Your task to perform on an android device: clear history in the chrome app Image 0: 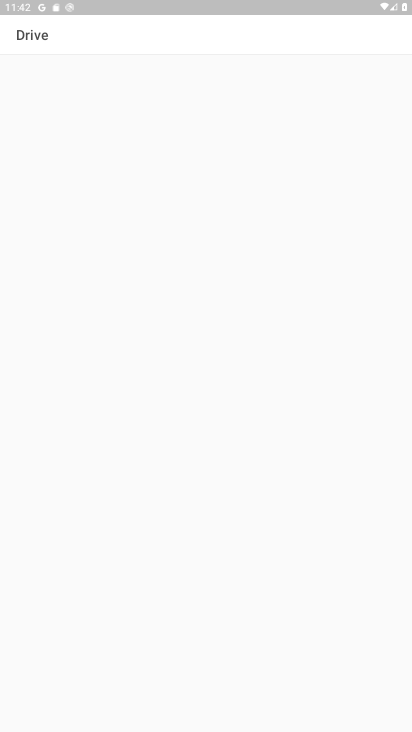
Step 0: press home button
Your task to perform on an android device: clear history in the chrome app Image 1: 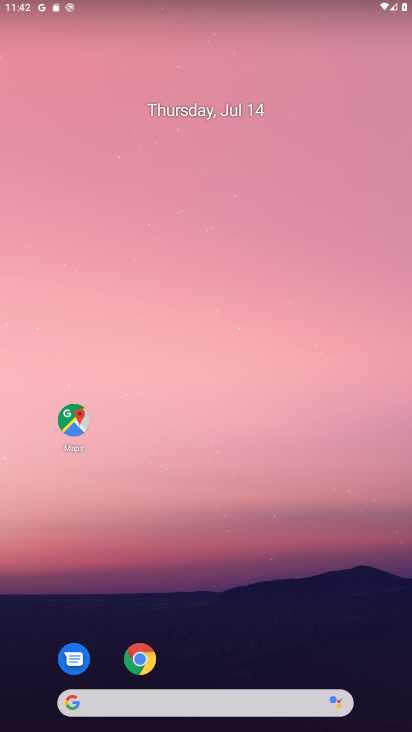
Step 1: click (146, 655)
Your task to perform on an android device: clear history in the chrome app Image 2: 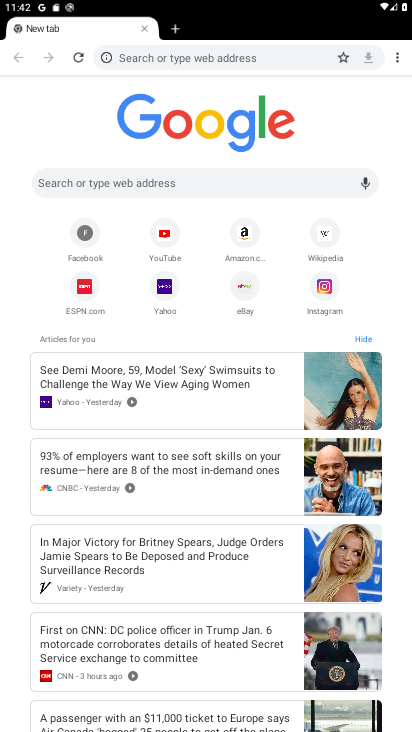
Step 2: click (394, 50)
Your task to perform on an android device: clear history in the chrome app Image 3: 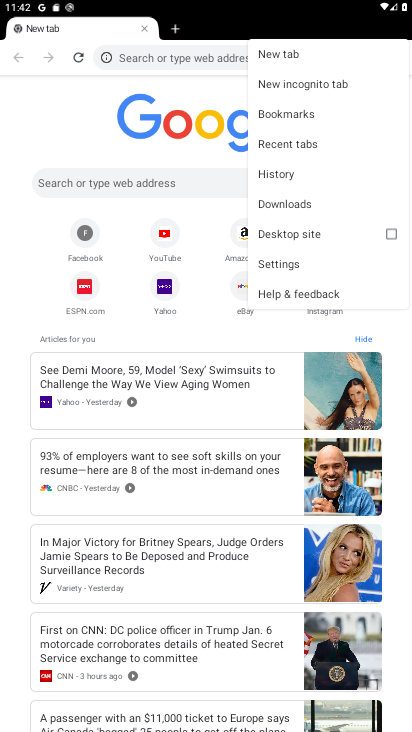
Step 3: click (296, 174)
Your task to perform on an android device: clear history in the chrome app Image 4: 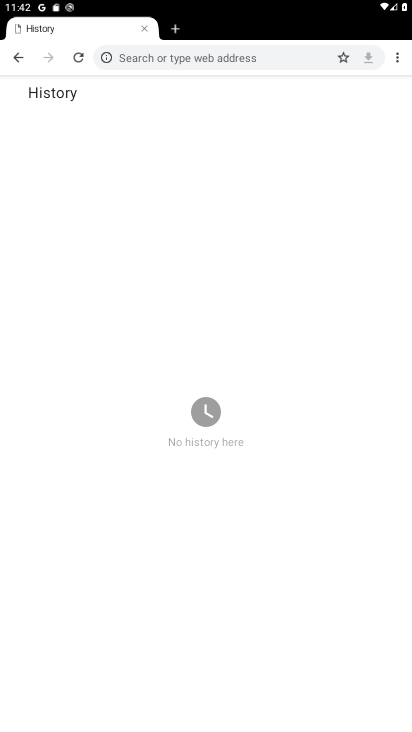
Step 4: task complete